Your task to perform on an android device: How do I get to the nearest Sprint Store? Image 0: 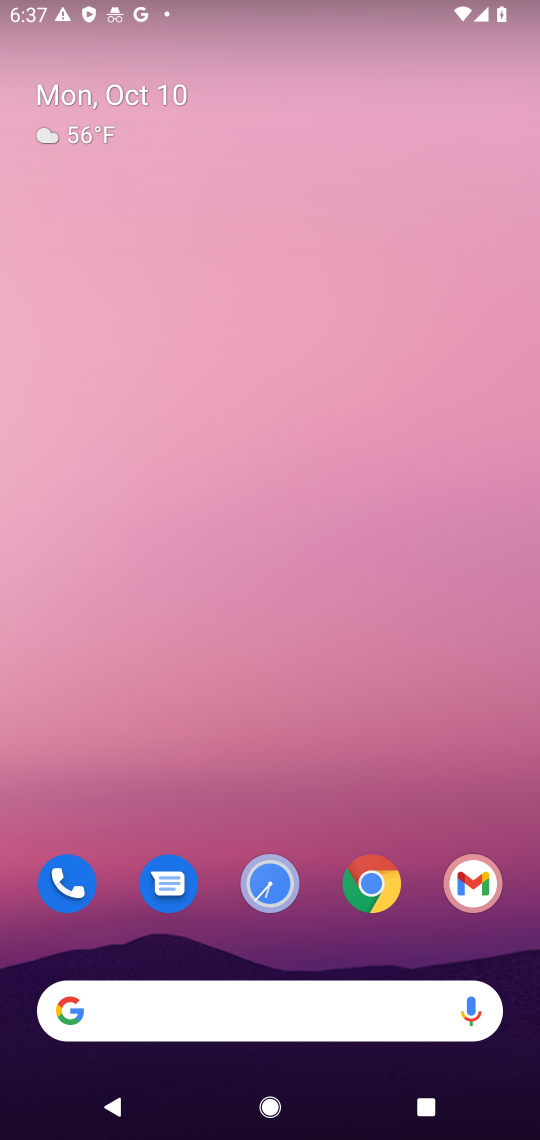
Step 0: drag from (310, 902) to (538, 32)
Your task to perform on an android device: How do I get to the nearest Sprint Store? Image 1: 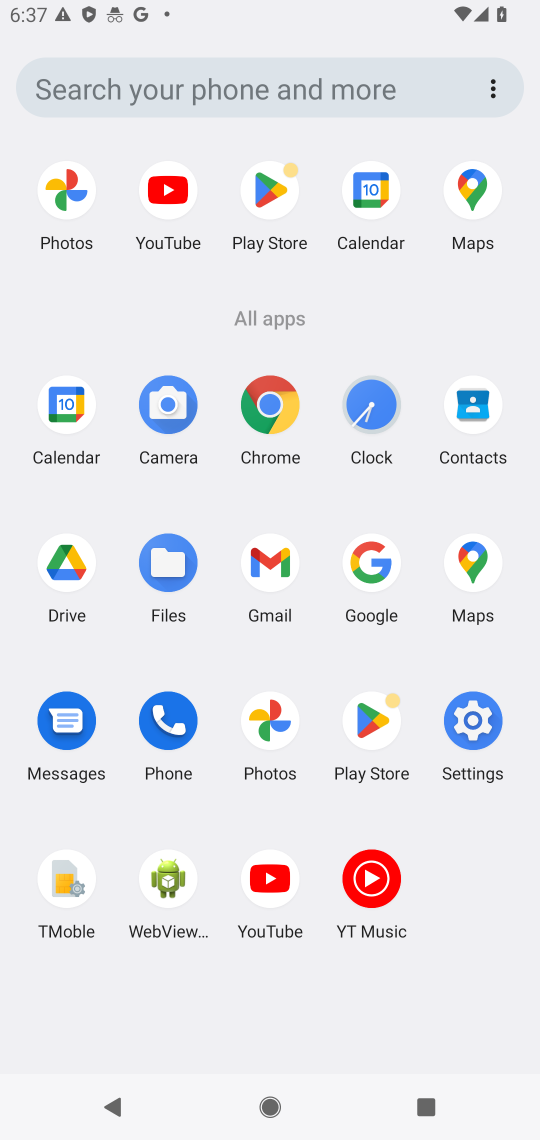
Step 1: click (378, 564)
Your task to perform on an android device: How do I get to the nearest Sprint Store? Image 2: 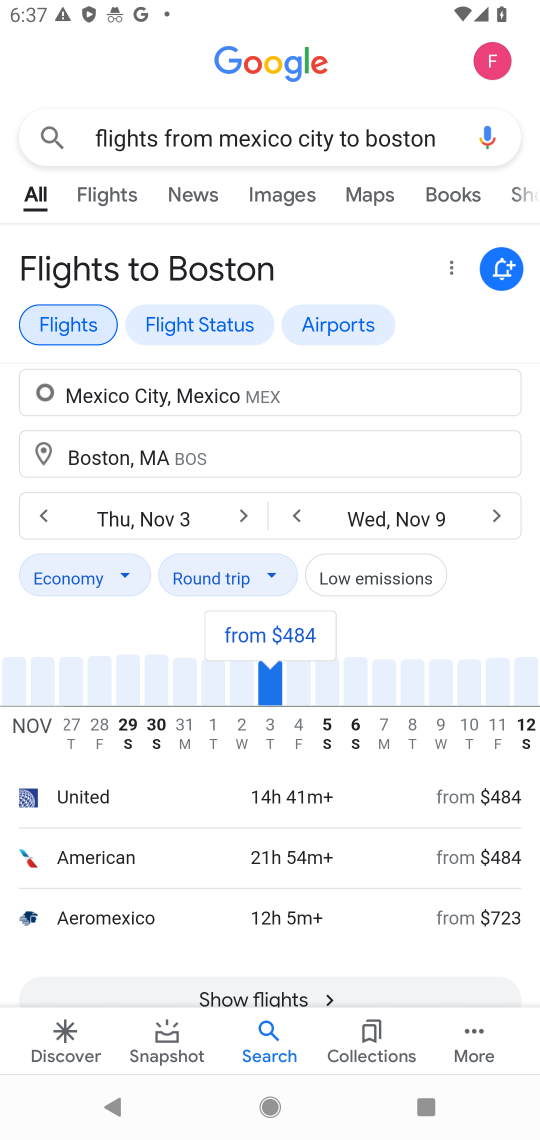
Step 2: click (436, 140)
Your task to perform on an android device: How do I get to the nearest Sprint Store? Image 3: 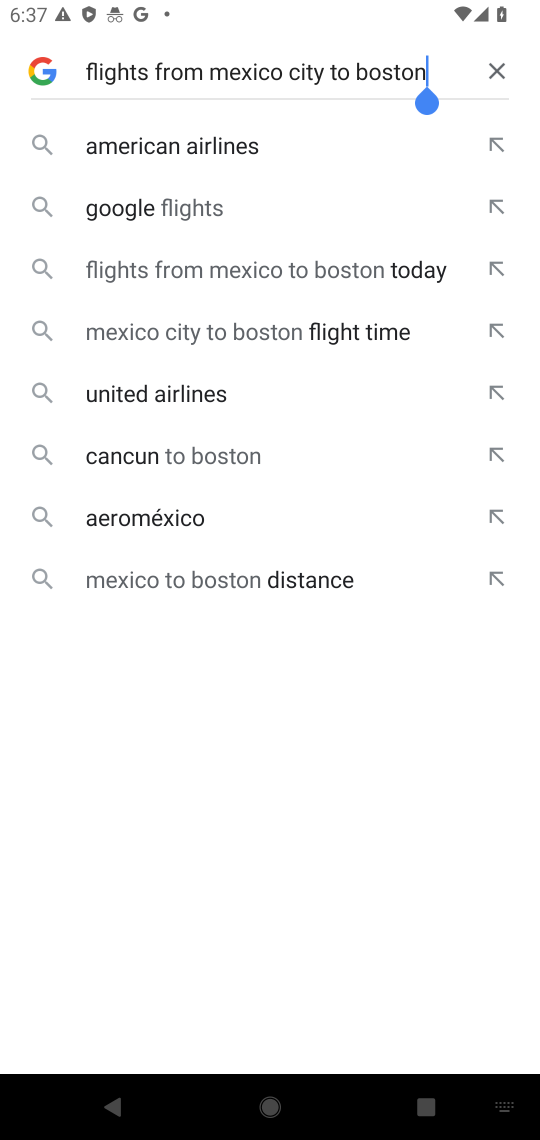
Step 3: click (498, 71)
Your task to perform on an android device: How do I get to the nearest Sprint Store? Image 4: 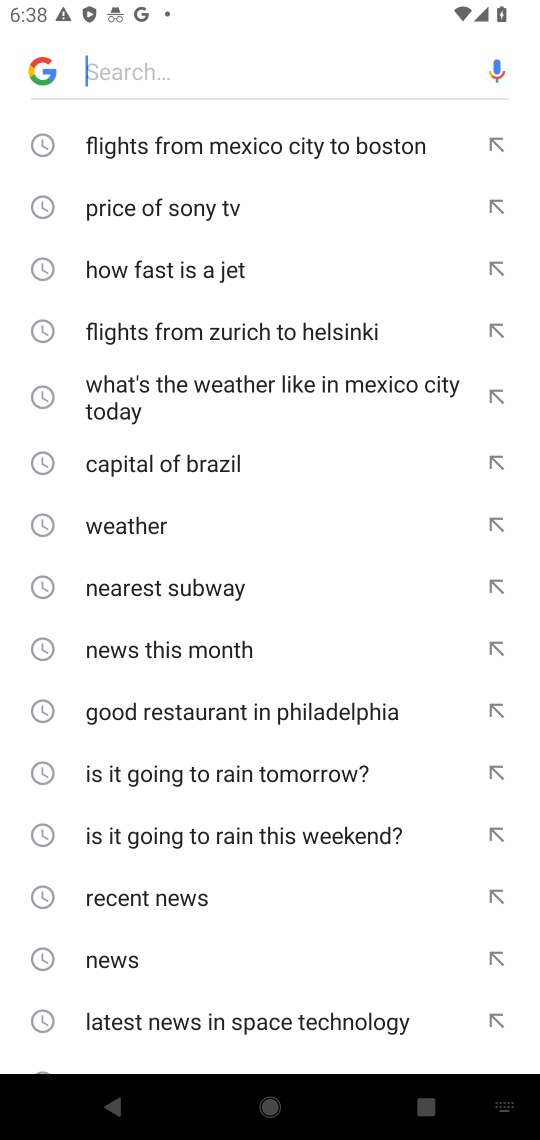
Step 4: type "nearest Sprint Store"
Your task to perform on an android device: How do I get to the nearest Sprint Store? Image 5: 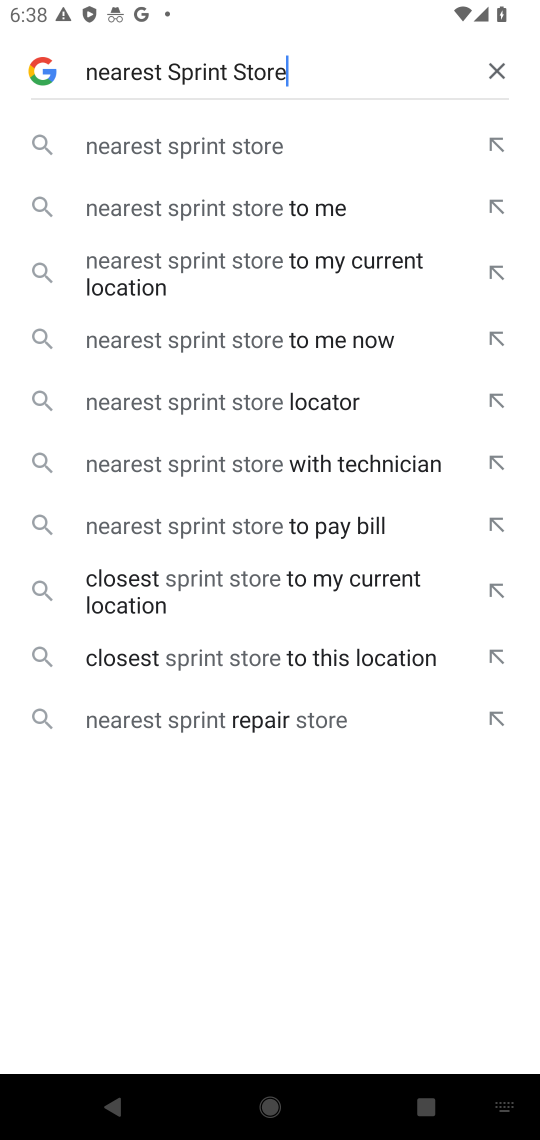
Step 5: click (152, 151)
Your task to perform on an android device: How do I get to the nearest Sprint Store? Image 6: 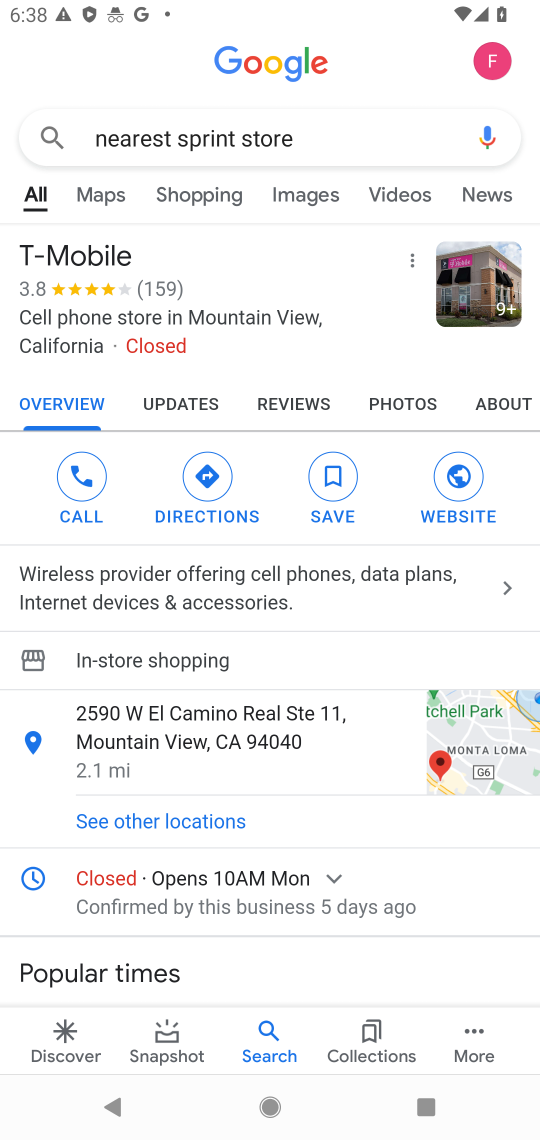
Step 6: click (204, 508)
Your task to perform on an android device: How do I get to the nearest Sprint Store? Image 7: 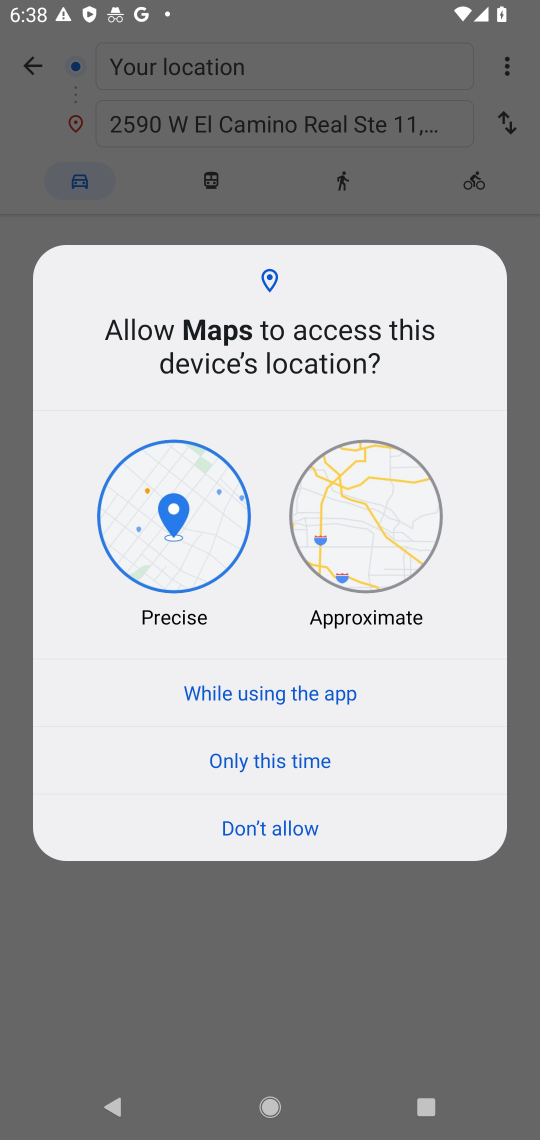
Step 7: click (259, 689)
Your task to perform on an android device: How do I get to the nearest Sprint Store? Image 8: 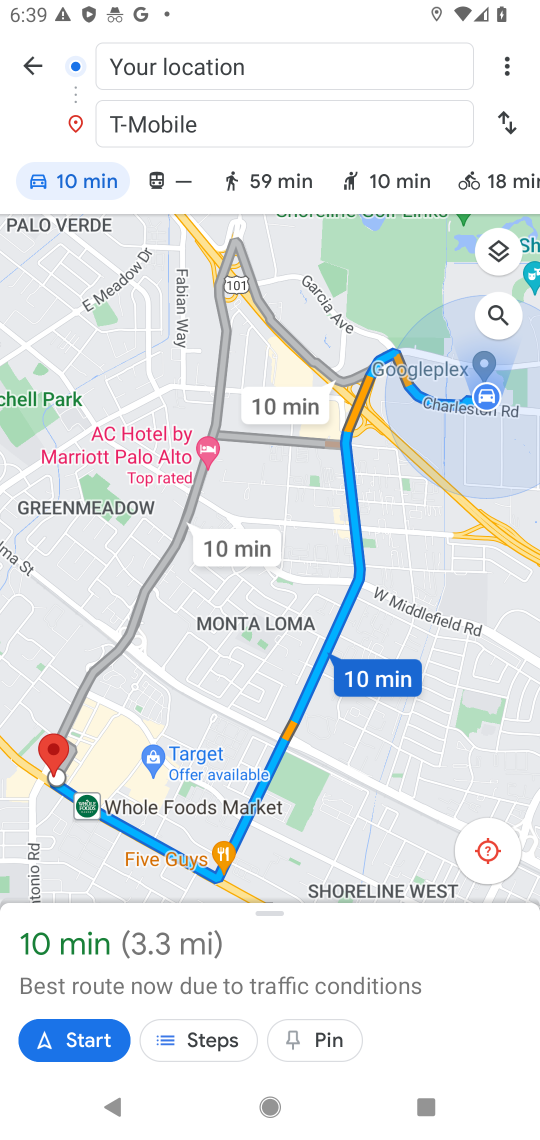
Step 8: task complete